Your task to perform on an android device: Go to battery settings Image 0: 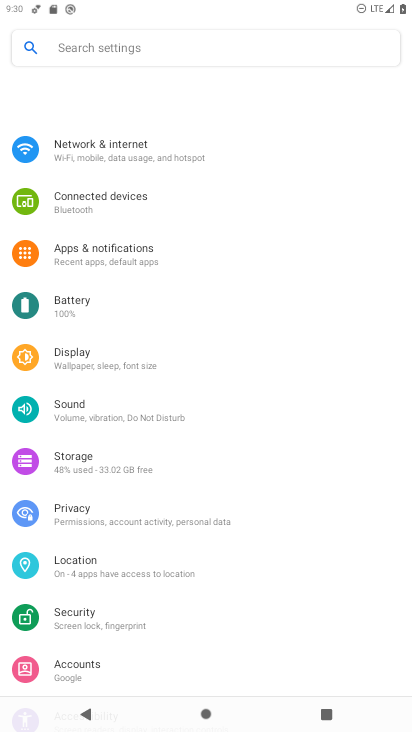
Step 0: drag from (235, 577) to (201, 66)
Your task to perform on an android device: Go to battery settings Image 1: 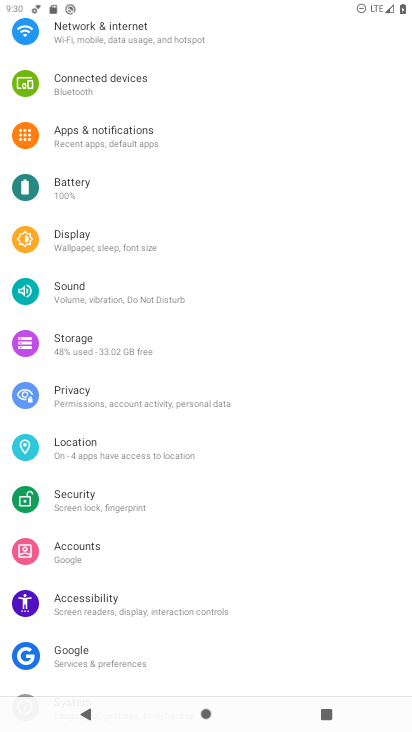
Step 1: click (78, 176)
Your task to perform on an android device: Go to battery settings Image 2: 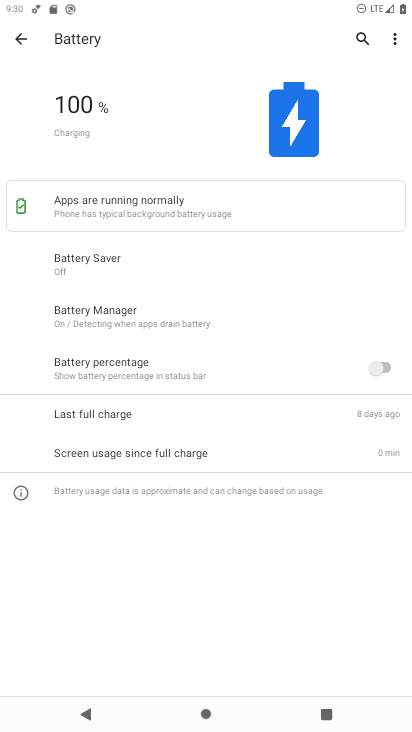
Step 2: task complete